Your task to perform on an android device: check storage Image 0: 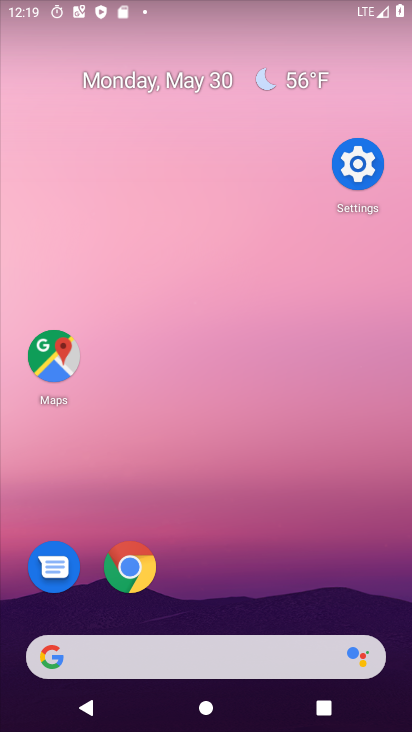
Step 0: drag from (307, 587) to (212, 102)
Your task to perform on an android device: check storage Image 1: 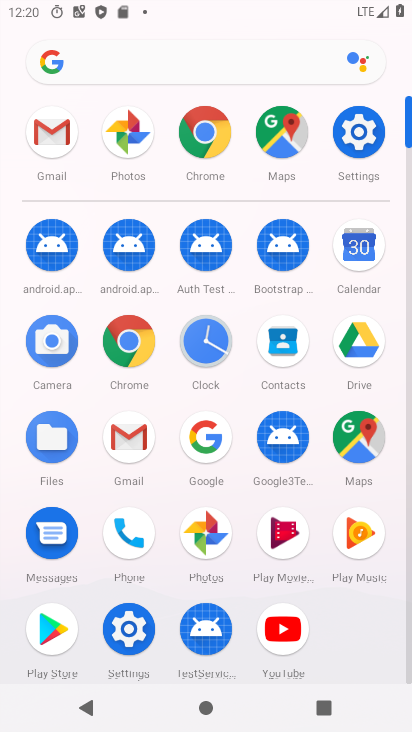
Step 1: click (113, 641)
Your task to perform on an android device: check storage Image 2: 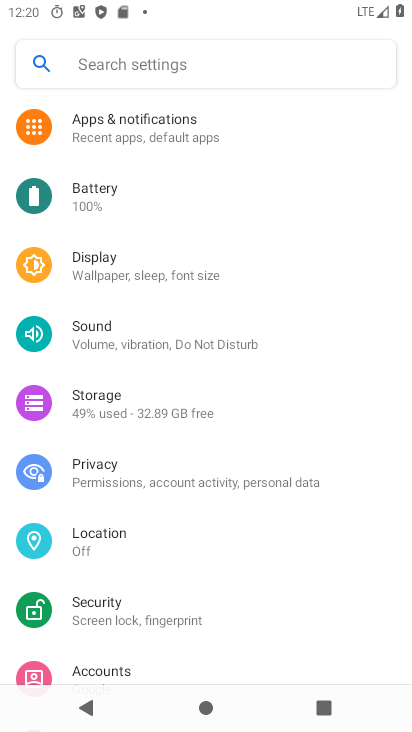
Step 2: drag from (177, 552) to (213, 234)
Your task to perform on an android device: check storage Image 3: 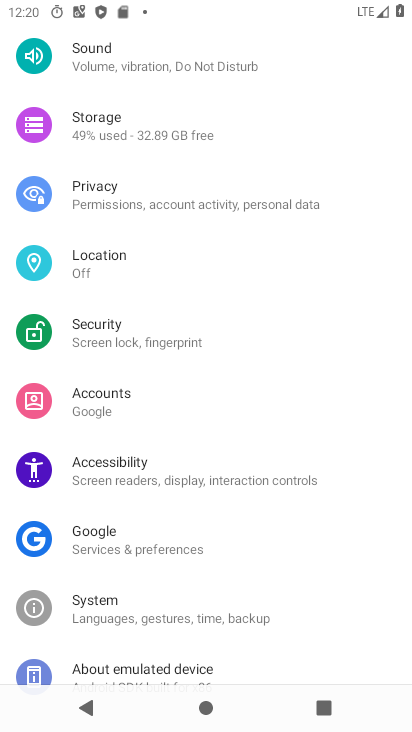
Step 3: click (183, 123)
Your task to perform on an android device: check storage Image 4: 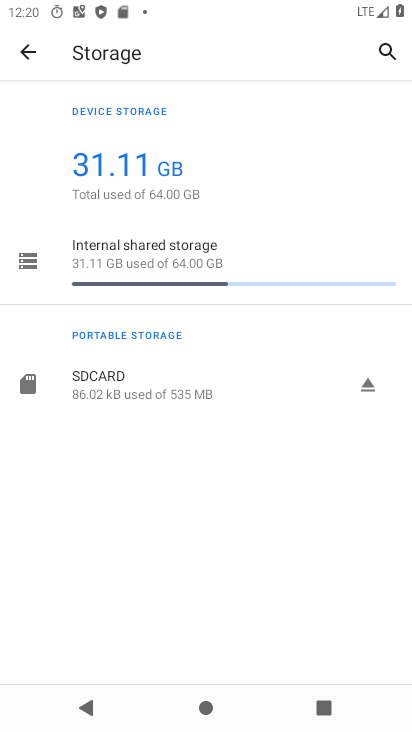
Step 4: click (28, 263)
Your task to perform on an android device: check storage Image 5: 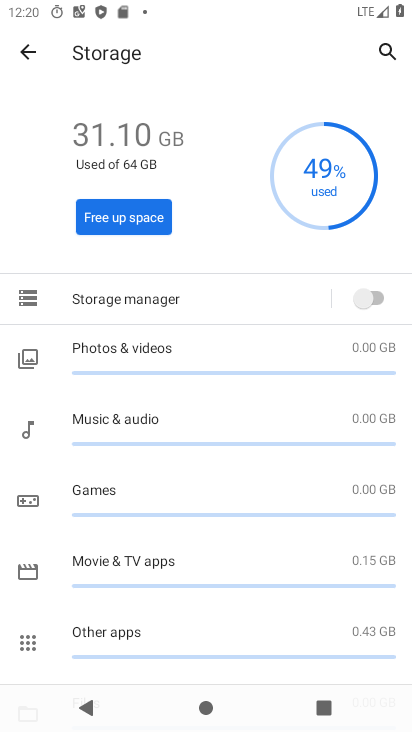
Step 5: task complete